Your task to perform on an android device: Do I have any events tomorrow? Image 0: 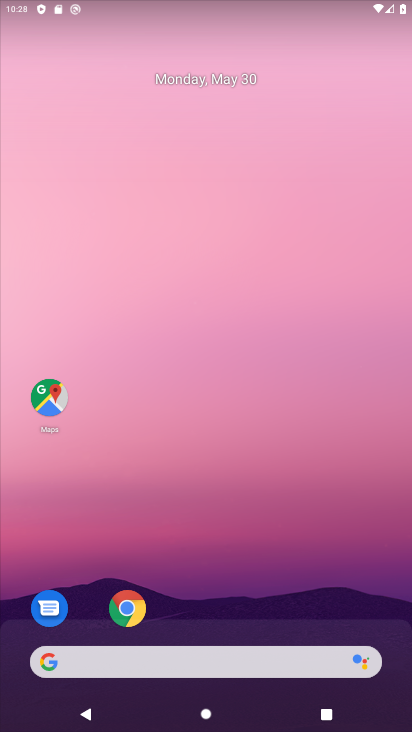
Step 0: drag from (298, 309) to (210, 14)
Your task to perform on an android device: Do I have any events tomorrow? Image 1: 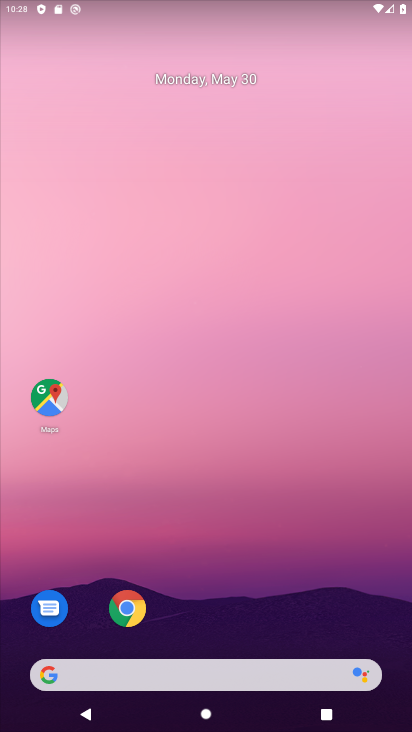
Step 1: drag from (234, 569) to (121, 40)
Your task to perform on an android device: Do I have any events tomorrow? Image 2: 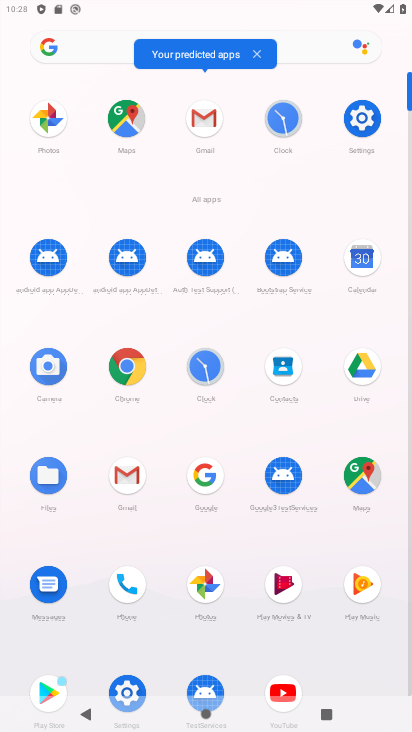
Step 2: drag from (10, 587) to (19, 296)
Your task to perform on an android device: Do I have any events tomorrow? Image 3: 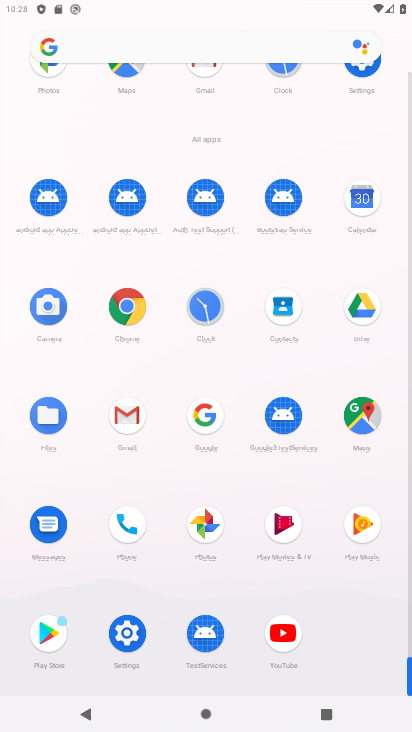
Step 3: click (365, 192)
Your task to perform on an android device: Do I have any events tomorrow? Image 4: 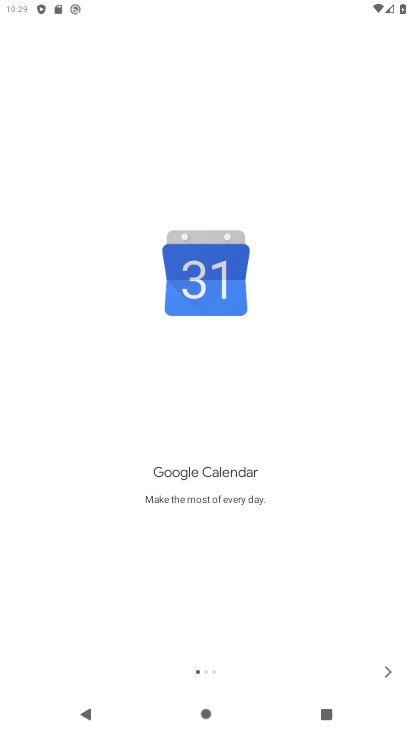
Step 4: click (386, 665)
Your task to perform on an android device: Do I have any events tomorrow? Image 5: 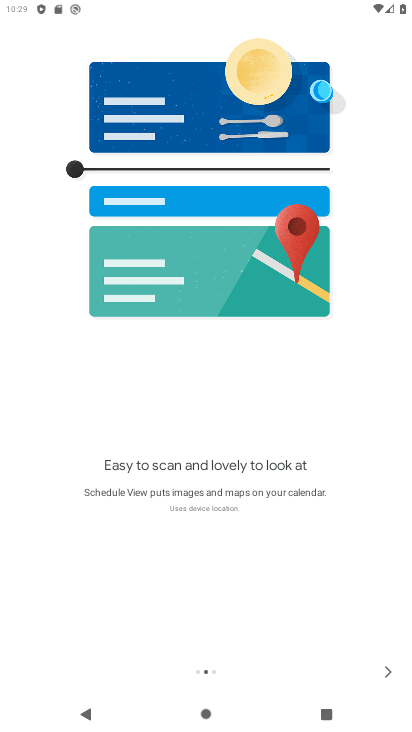
Step 5: click (385, 666)
Your task to perform on an android device: Do I have any events tomorrow? Image 6: 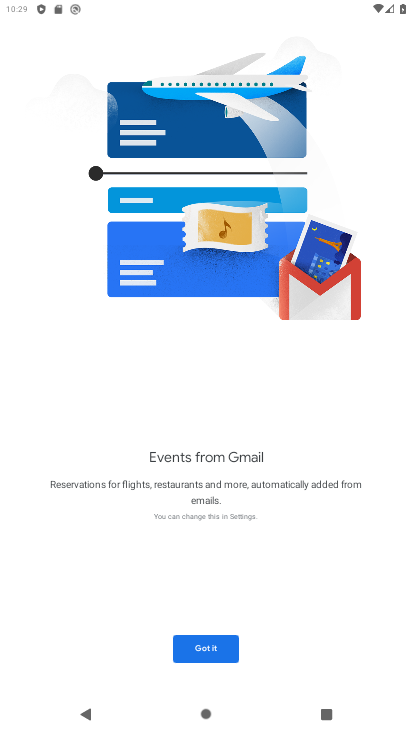
Step 6: click (200, 648)
Your task to perform on an android device: Do I have any events tomorrow? Image 7: 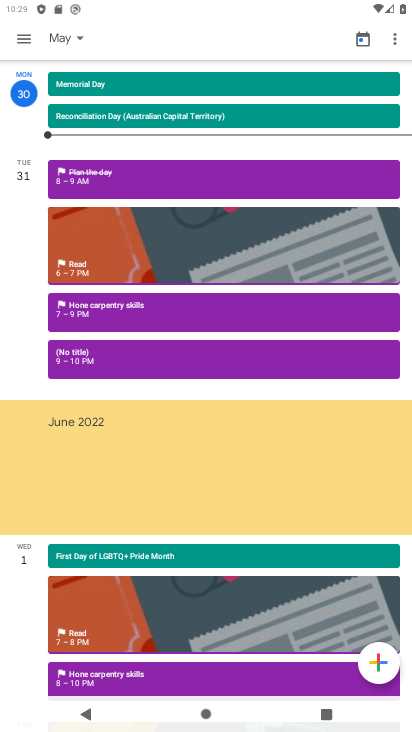
Step 7: click (20, 36)
Your task to perform on an android device: Do I have any events tomorrow? Image 8: 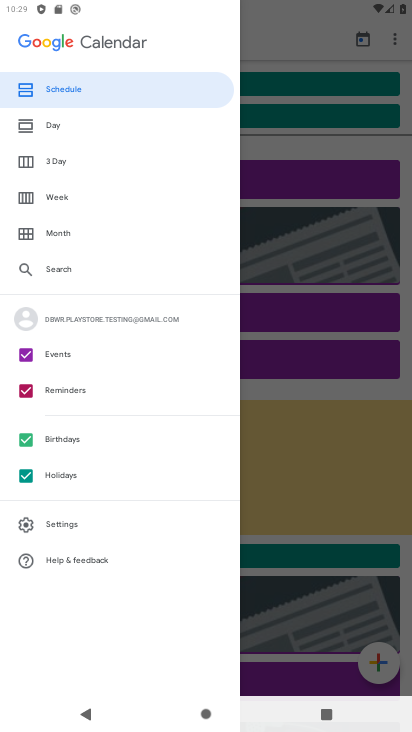
Step 8: click (78, 127)
Your task to perform on an android device: Do I have any events tomorrow? Image 9: 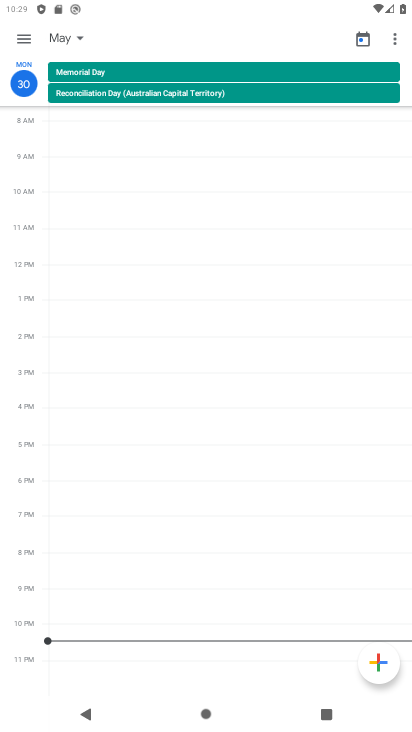
Step 9: task complete